Your task to perform on an android device: Check the weather Image 0: 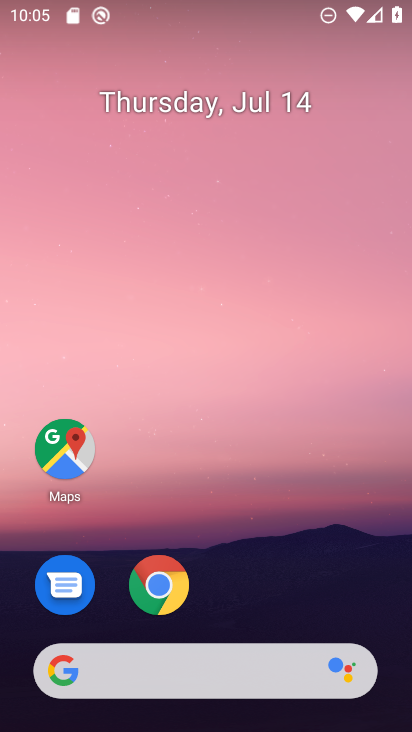
Step 0: click (217, 678)
Your task to perform on an android device: Check the weather Image 1: 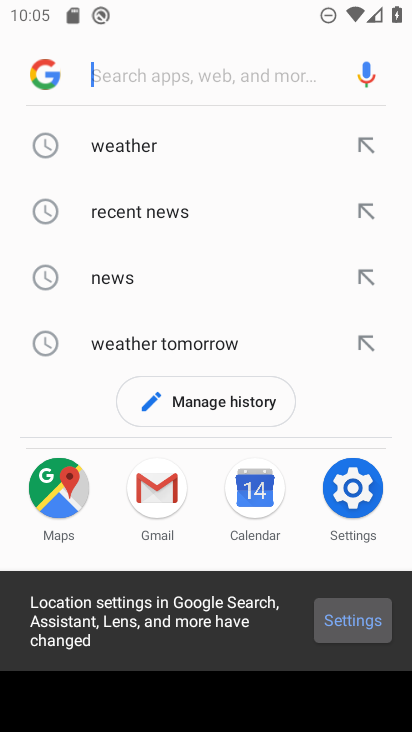
Step 1: click (112, 161)
Your task to perform on an android device: Check the weather Image 2: 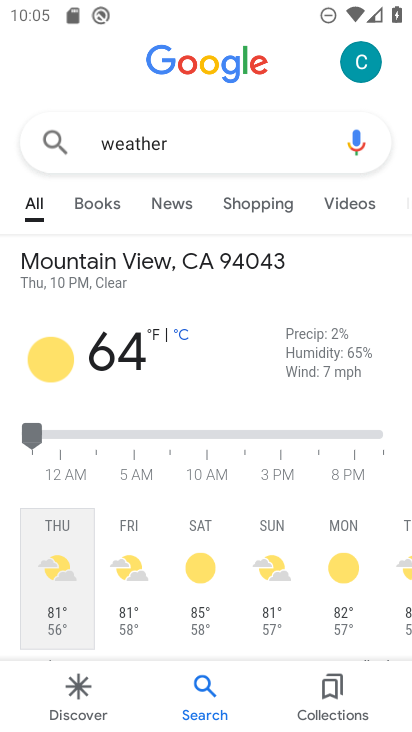
Step 2: task complete